Your task to perform on an android device: Go to accessibility settings Image 0: 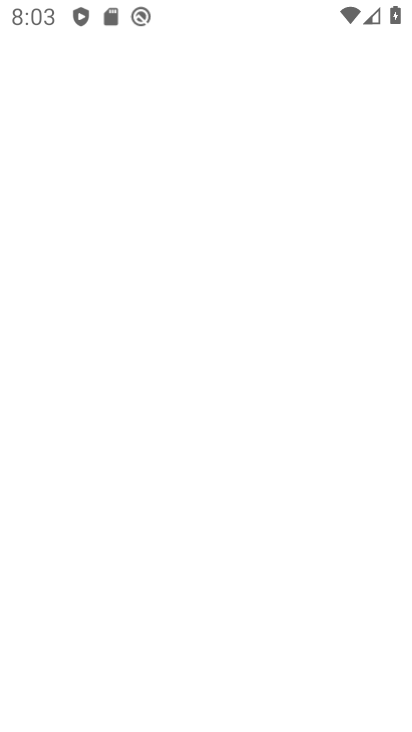
Step 0: press home button
Your task to perform on an android device: Go to accessibility settings Image 1: 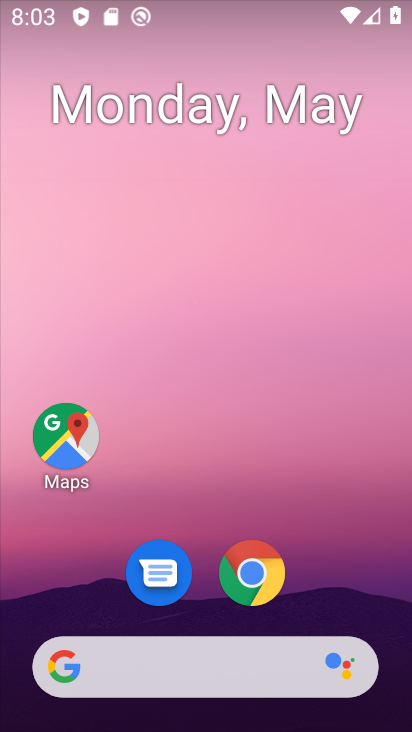
Step 1: drag from (214, 475) to (241, 31)
Your task to perform on an android device: Go to accessibility settings Image 2: 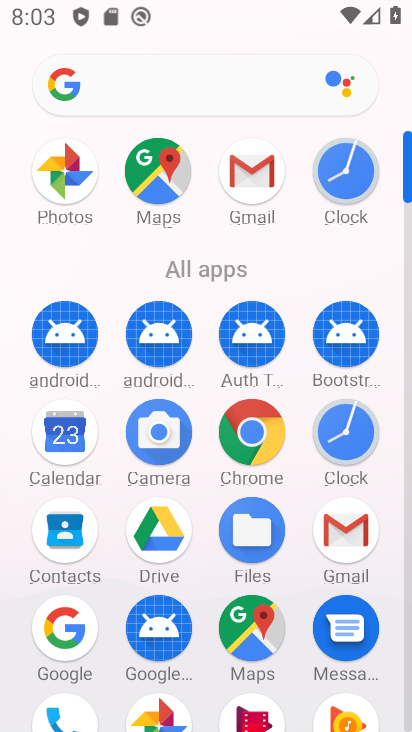
Step 2: drag from (207, 508) to (279, 19)
Your task to perform on an android device: Go to accessibility settings Image 3: 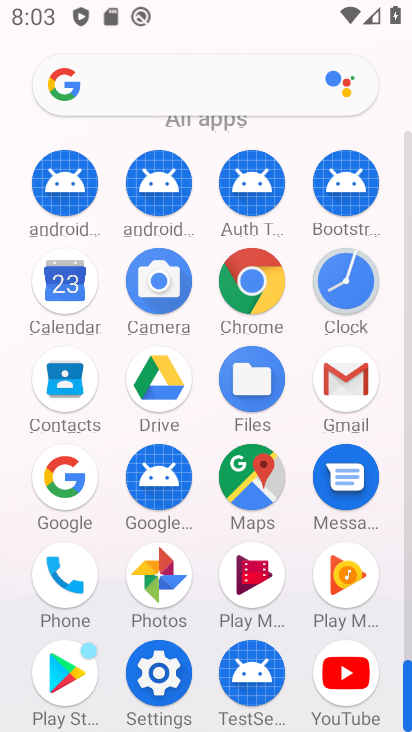
Step 3: drag from (219, 542) to (261, 191)
Your task to perform on an android device: Go to accessibility settings Image 4: 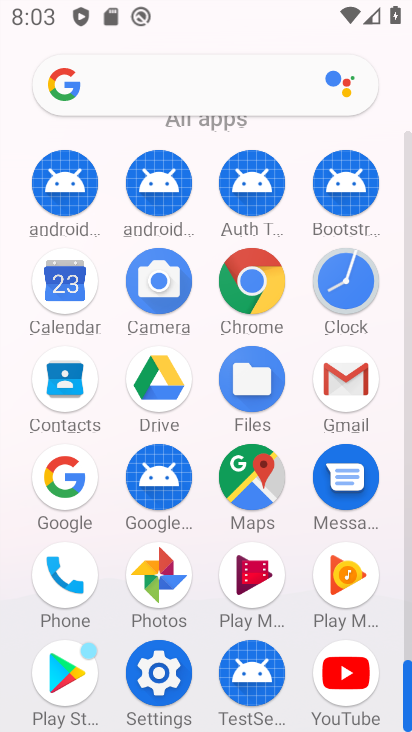
Step 4: click (165, 675)
Your task to perform on an android device: Go to accessibility settings Image 5: 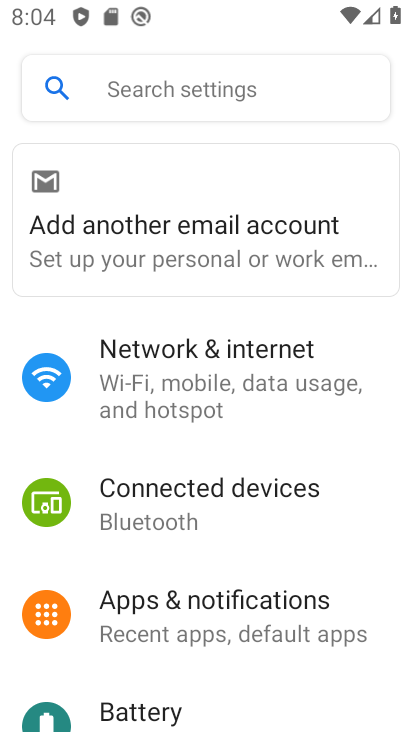
Step 5: drag from (245, 543) to (247, 233)
Your task to perform on an android device: Go to accessibility settings Image 6: 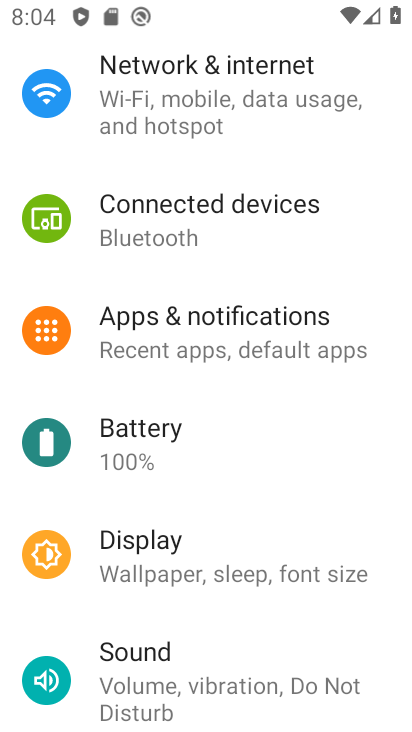
Step 6: drag from (199, 564) to (226, 162)
Your task to perform on an android device: Go to accessibility settings Image 7: 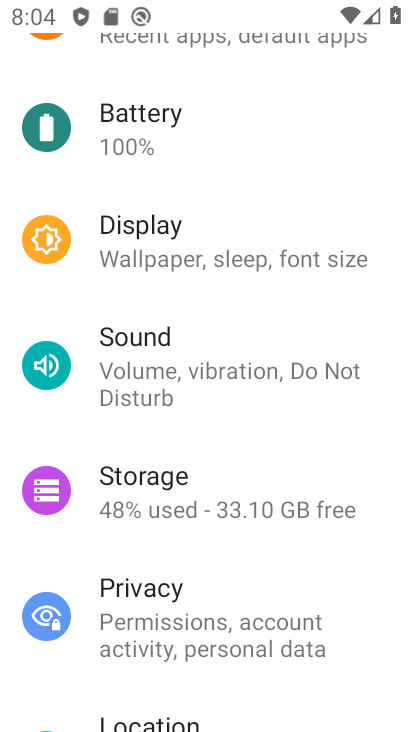
Step 7: drag from (199, 548) to (248, 23)
Your task to perform on an android device: Go to accessibility settings Image 8: 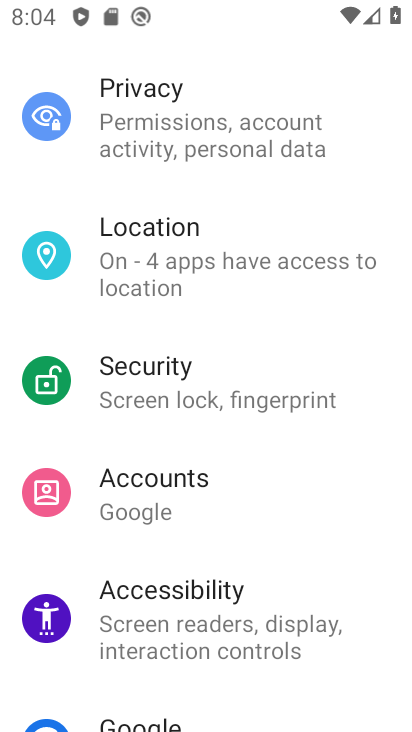
Step 8: click (190, 575)
Your task to perform on an android device: Go to accessibility settings Image 9: 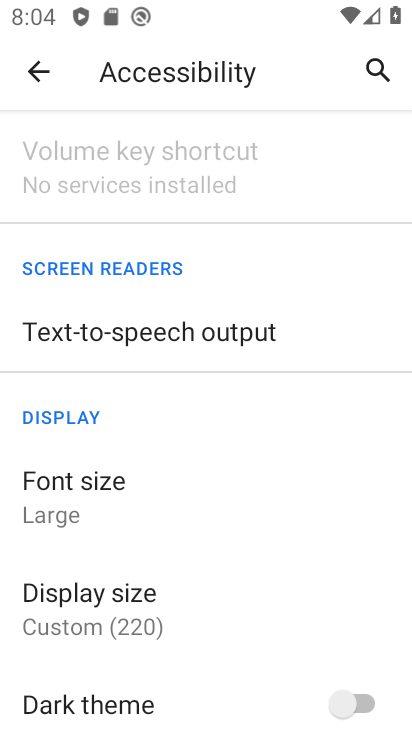
Step 9: task complete